Your task to perform on an android device: Open calendar and show me the fourth week of next month Image 0: 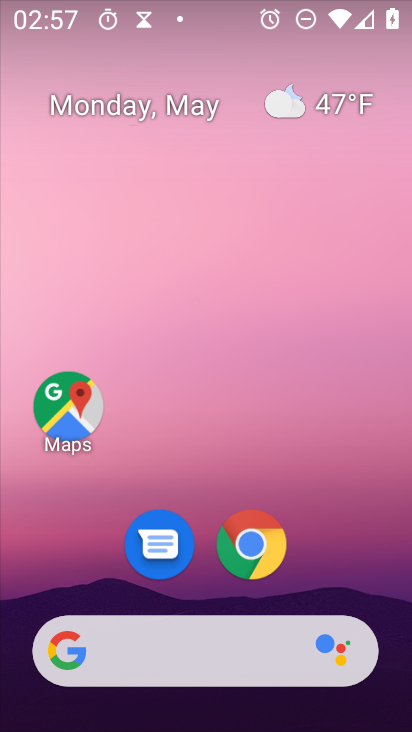
Step 0: drag from (347, 611) to (324, 31)
Your task to perform on an android device: Open calendar and show me the fourth week of next month Image 1: 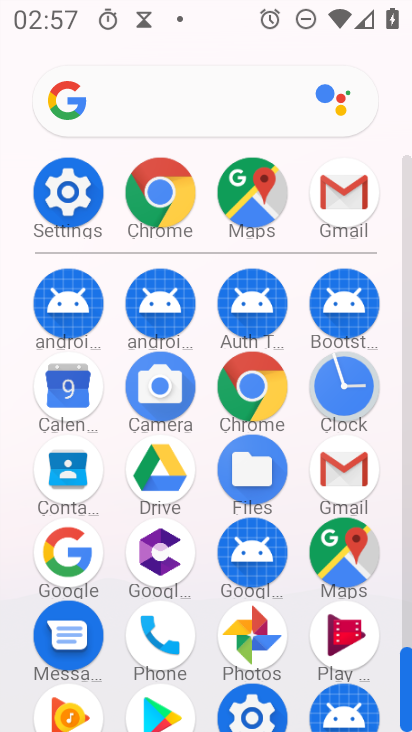
Step 1: click (79, 384)
Your task to perform on an android device: Open calendar and show me the fourth week of next month Image 2: 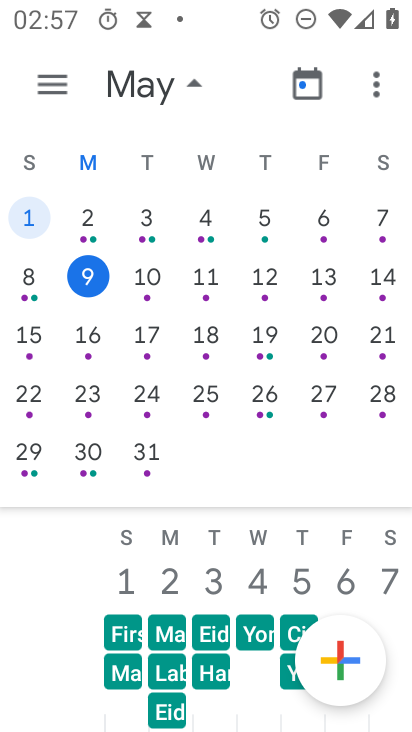
Step 2: drag from (346, 355) to (0, 436)
Your task to perform on an android device: Open calendar and show me the fourth week of next month Image 3: 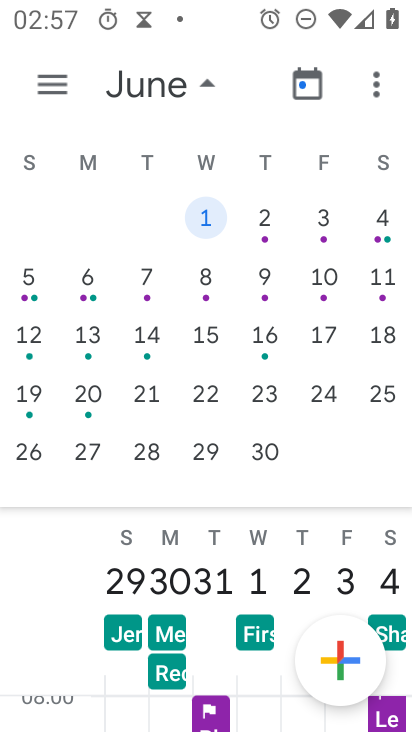
Step 3: drag from (111, 349) to (400, 352)
Your task to perform on an android device: Open calendar and show me the fourth week of next month Image 4: 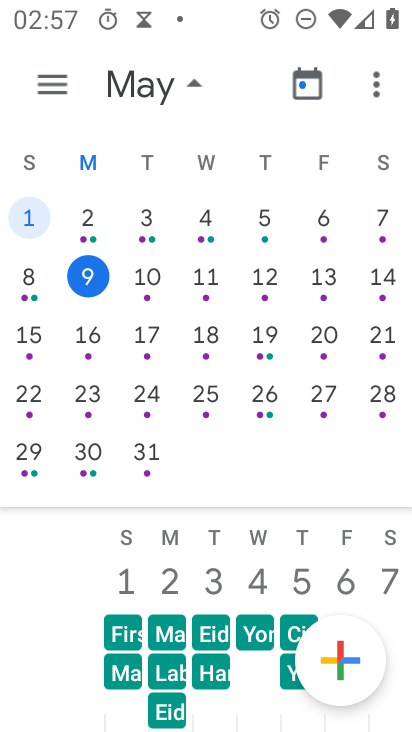
Step 4: drag from (378, 371) to (40, 415)
Your task to perform on an android device: Open calendar and show me the fourth week of next month Image 5: 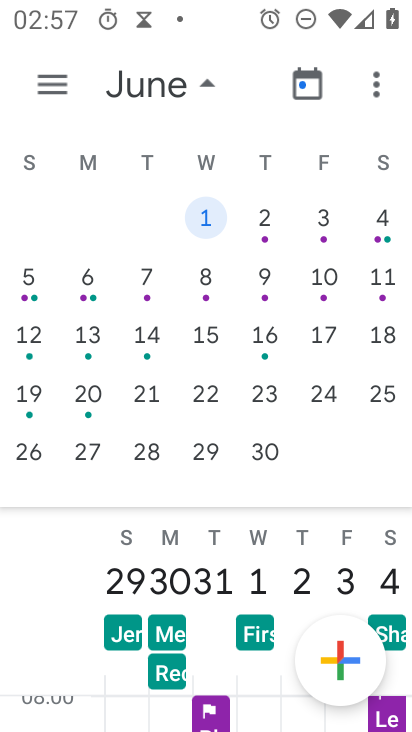
Step 5: click (266, 393)
Your task to perform on an android device: Open calendar and show me the fourth week of next month Image 6: 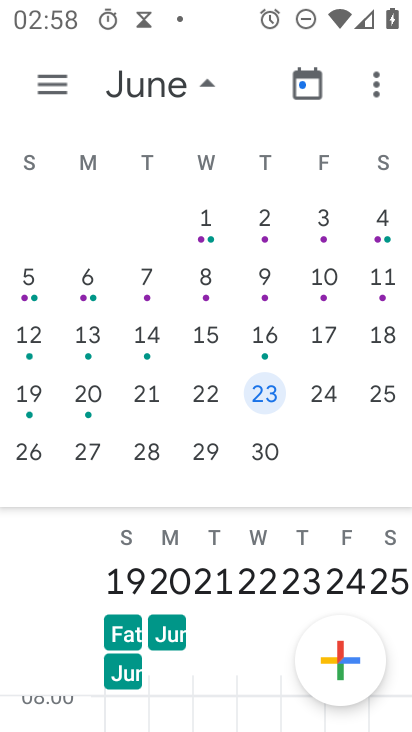
Step 6: task complete